Your task to perform on an android device: When is my next appointment? Image 0: 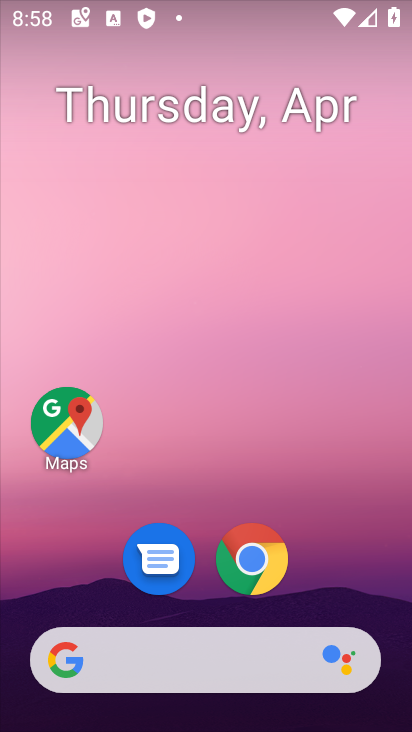
Step 0: drag from (256, 717) to (267, 5)
Your task to perform on an android device: When is my next appointment? Image 1: 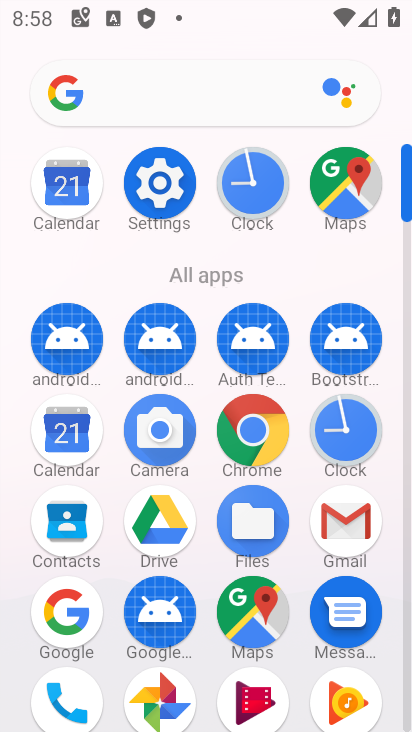
Step 1: click (45, 424)
Your task to perform on an android device: When is my next appointment? Image 2: 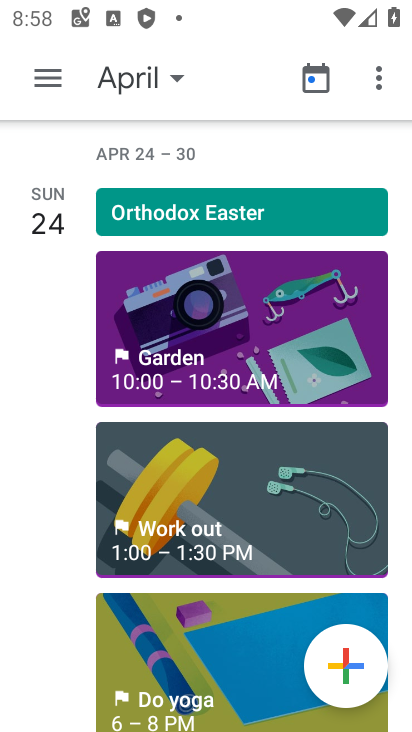
Step 2: task complete